Your task to perform on an android device: toggle priority inbox in the gmail app Image 0: 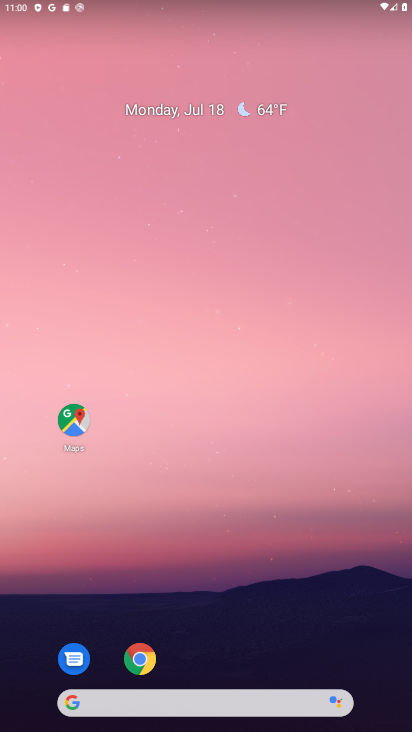
Step 0: press home button
Your task to perform on an android device: toggle priority inbox in the gmail app Image 1: 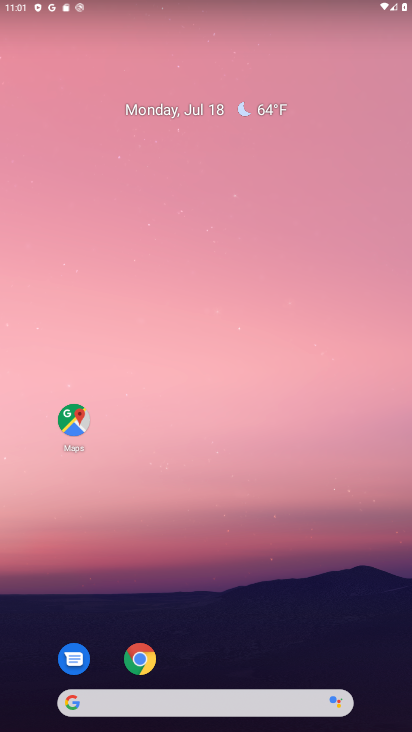
Step 1: drag from (328, 639) to (121, 156)
Your task to perform on an android device: toggle priority inbox in the gmail app Image 2: 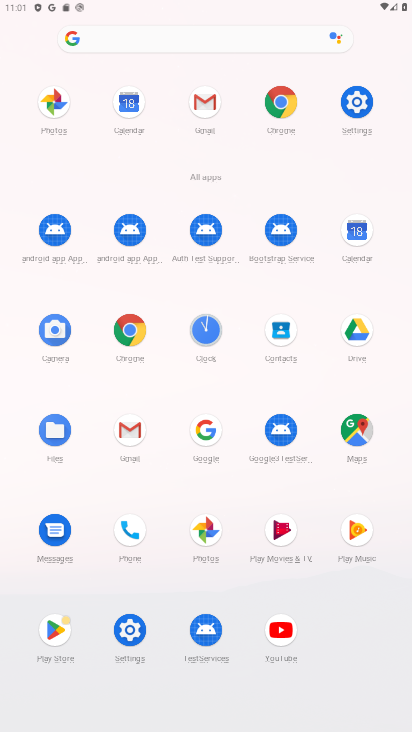
Step 2: click (199, 118)
Your task to perform on an android device: toggle priority inbox in the gmail app Image 3: 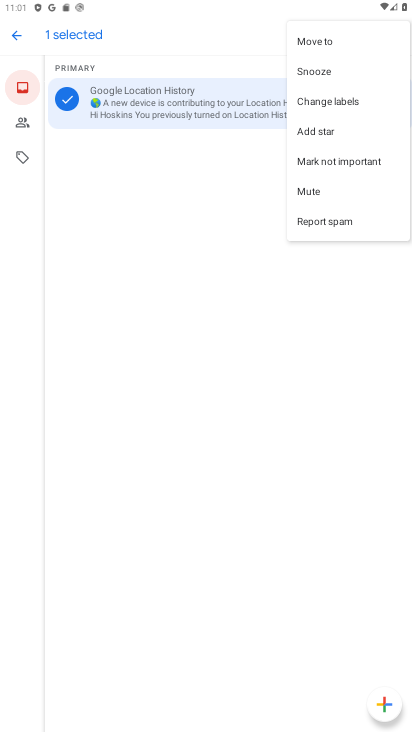
Step 3: click (134, 214)
Your task to perform on an android device: toggle priority inbox in the gmail app Image 4: 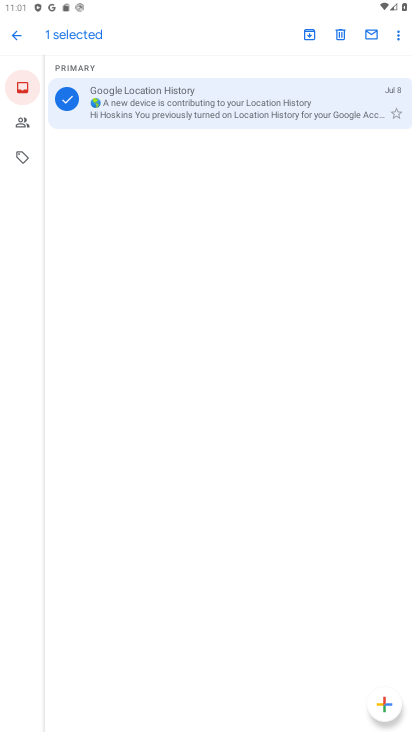
Step 4: click (14, 37)
Your task to perform on an android device: toggle priority inbox in the gmail app Image 5: 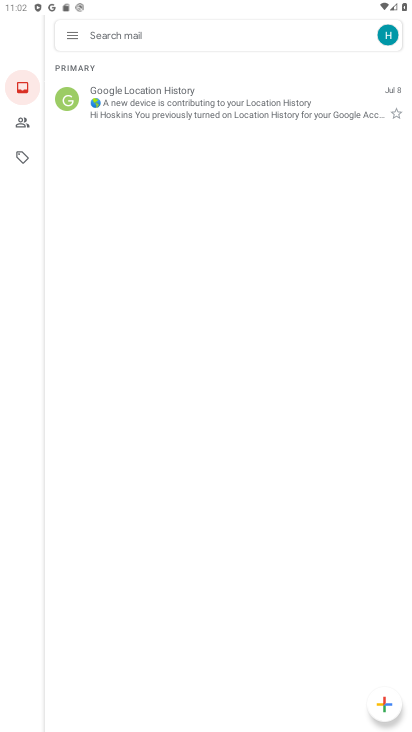
Step 5: click (69, 40)
Your task to perform on an android device: toggle priority inbox in the gmail app Image 6: 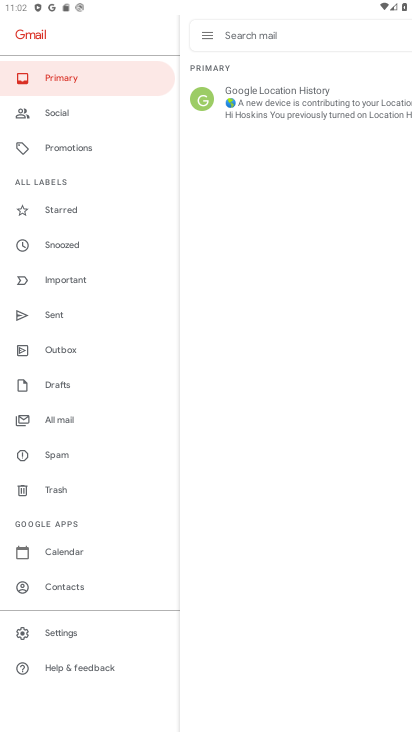
Step 6: click (84, 640)
Your task to perform on an android device: toggle priority inbox in the gmail app Image 7: 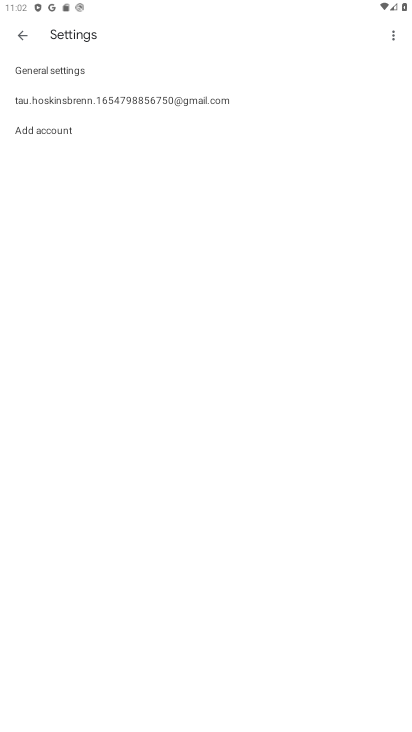
Step 7: click (140, 102)
Your task to perform on an android device: toggle priority inbox in the gmail app Image 8: 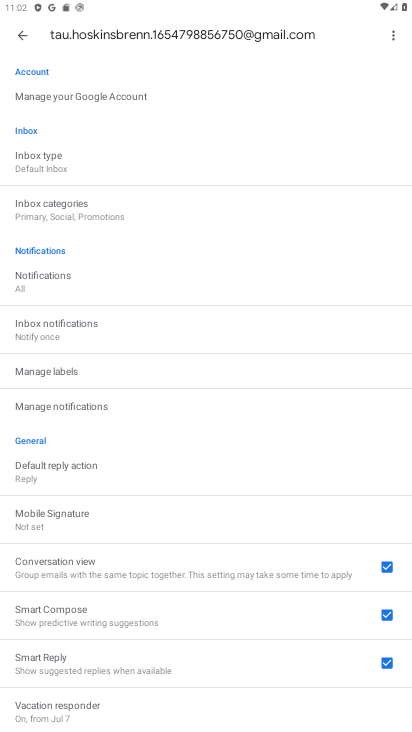
Step 8: click (83, 152)
Your task to perform on an android device: toggle priority inbox in the gmail app Image 9: 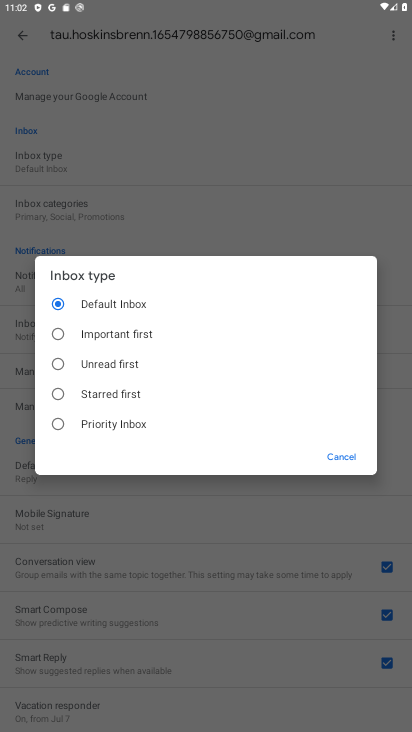
Step 9: click (101, 420)
Your task to perform on an android device: toggle priority inbox in the gmail app Image 10: 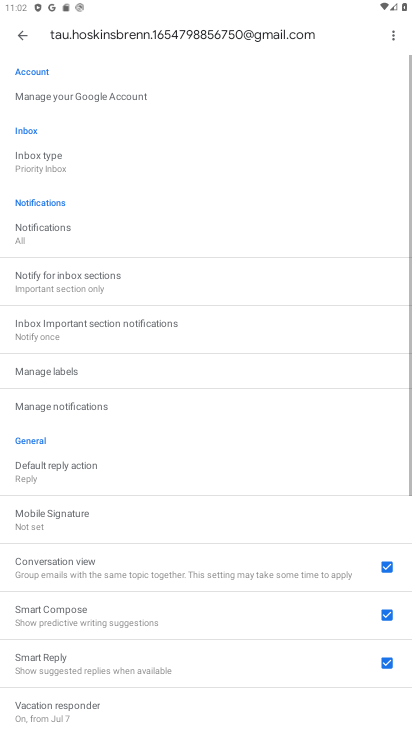
Step 10: task complete